Your task to perform on an android device: Add macbook pro 15 inch to the cart on ebay.com, then select checkout. Image 0: 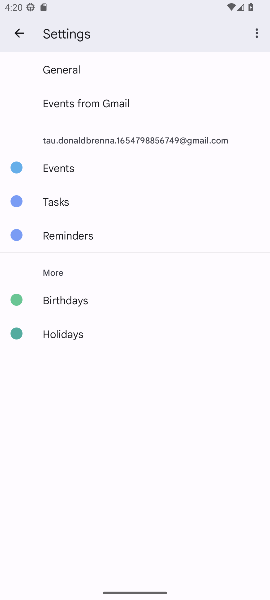
Step 0: press home button
Your task to perform on an android device: Add macbook pro 15 inch to the cart on ebay.com, then select checkout. Image 1: 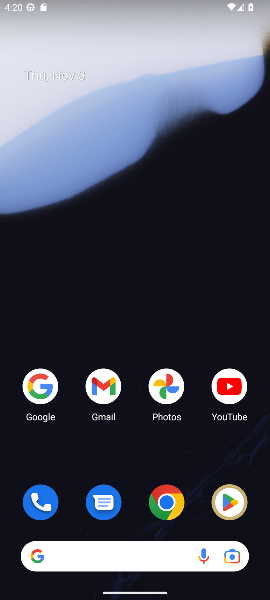
Step 1: click (167, 494)
Your task to perform on an android device: Add macbook pro 15 inch to the cart on ebay.com, then select checkout. Image 2: 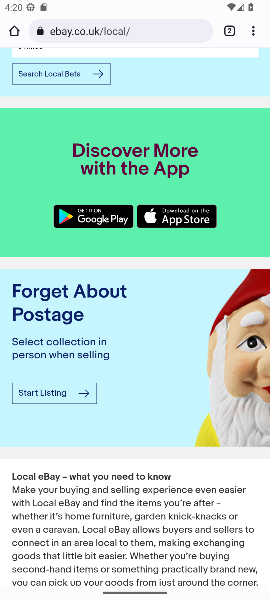
Step 2: click (10, 28)
Your task to perform on an android device: Add macbook pro 15 inch to the cart on ebay.com, then select checkout. Image 3: 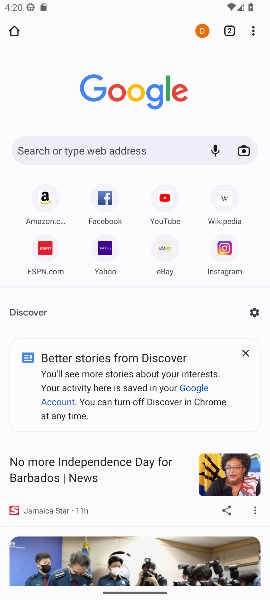
Step 3: click (88, 147)
Your task to perform on an android device: Add macbook pro 15 inch to the cart on ebay.com, then select checkout. Image 4: 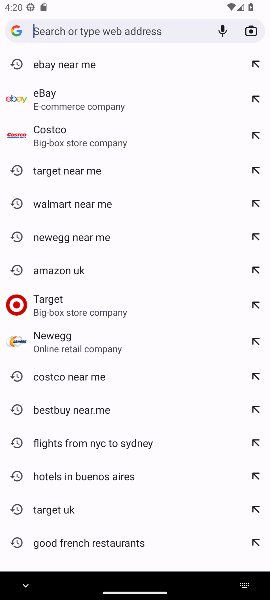
Step 4: click (50, 91)
Your task to perform on an android device: Add macbook pro 15 inch to the cart on ebay.com, then select checkout. Image 5: 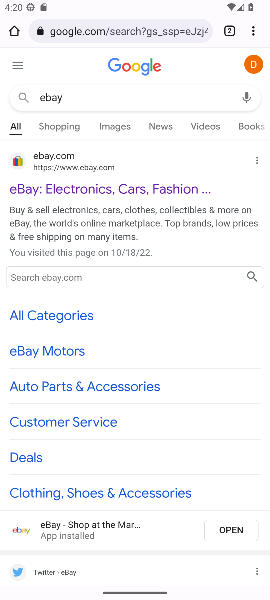
Step 5: drag from (182, 364) to (175, 223)
Your task to perform on an android device: Add macbook pro 15 inch to the cart on ebay.com, then select checkout. Image 6: 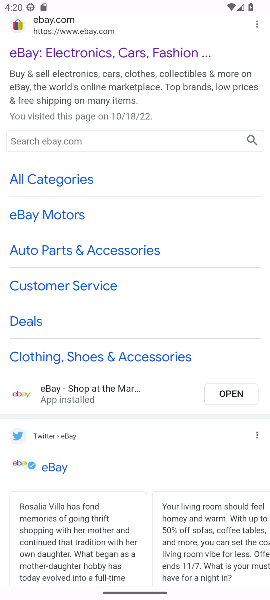
Step 6: drag from (143, 417) to (125, 203)
Your task to perform on an android device: Add macbook pro 15 inch to the cart on ebay.com, then select checkout. Image 7: 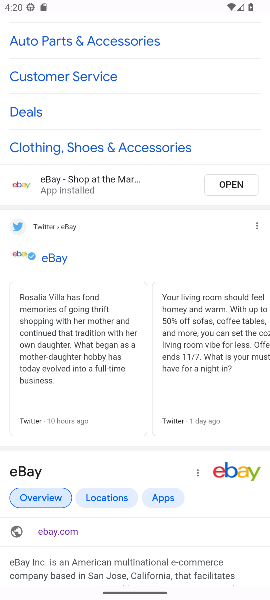
Step 7: click (59, 529)
Your task to perform on an android device: Add macbook pro 15 inch to the cart on ebay.com, then select checkout. Image 8: 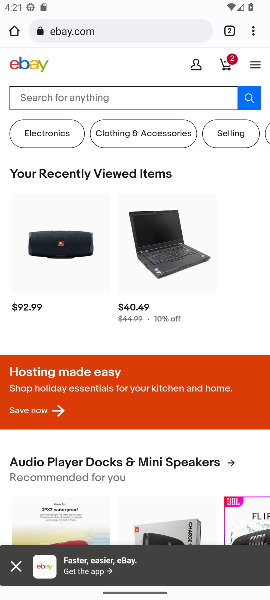
Step 8: click (56, 93)
Your task to perform on an android device: Add macbook pro 15 inch to the cart on ebay.com, then select checkout. Image 9: 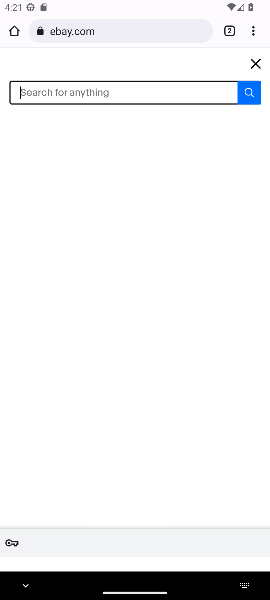
Step 9: type "macbook pro 15 inch"
Your task to perform on an android device: Add macbook pro 15 inch to the cart on ebay.com, then select checkout. Image 10: 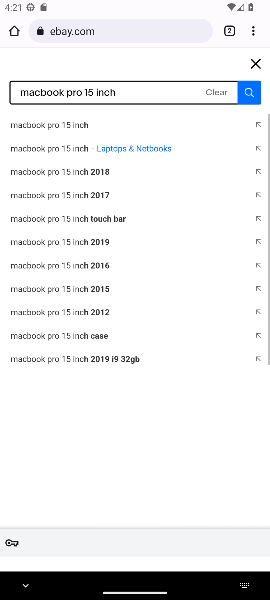
Step 10: click (61, 124)
Your task to perform on an android device: Add macbook pro 15 inch to the cart on ebay.com, then select checkout. Image 11: 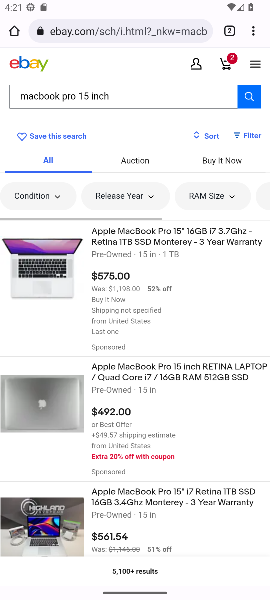
Step 11: click (146, 252)
Your task to perform on an android device: Add macbook pro 15 inch to the cart on ebay.com, then select checkout. Image 12: 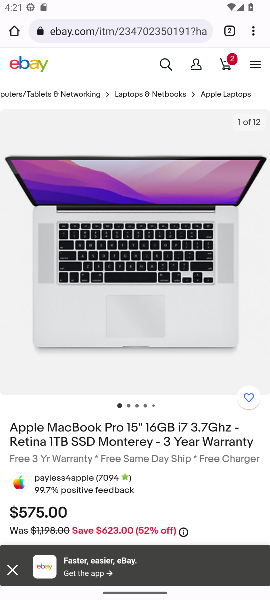
Step 12: drag from (214, 483) to (177, 279)
Your task to perform on an android device: Add macbook pro 15 inch to the cart on ebay.com, then select checkout. Image 13: 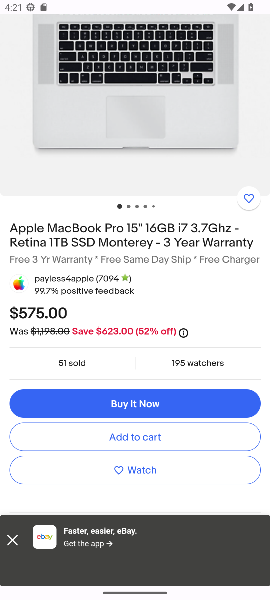
Step 13: click (155, 436)
Your task to perform on an android device: Add macbook pro 15 inch to the cart on ebay.com, then select checkout. Image 14: 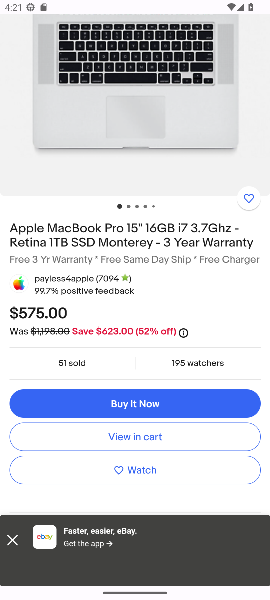
Step 14: click (155, 436)
Your task to perform on an android device: Add macbook pro 15 inch to the cart on ebay.com, then select checkout. Image 15: 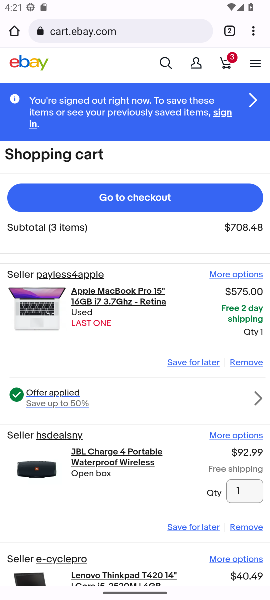
Step 15: click (122, 197)
Your task to perform on an android device: Add macbook pro 15 inch to the cart on ebay.com, then select checkout. Image 16: 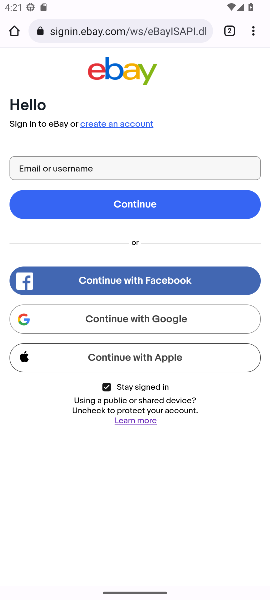
Step 16: task complete